Your task to perform on an android device: Open the web browser Image 0: 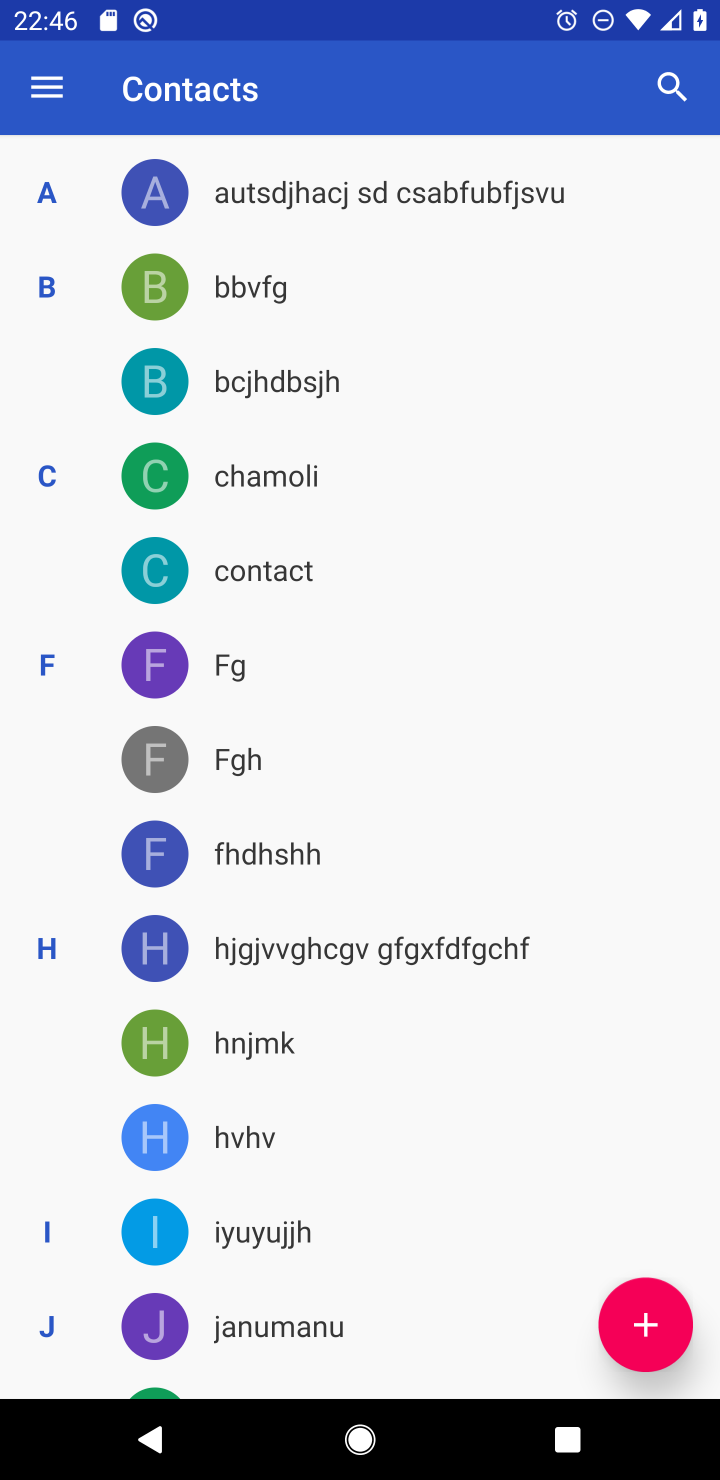
Step 0: press home button
Your task to perform on an android device: Open the web browser Image 1: 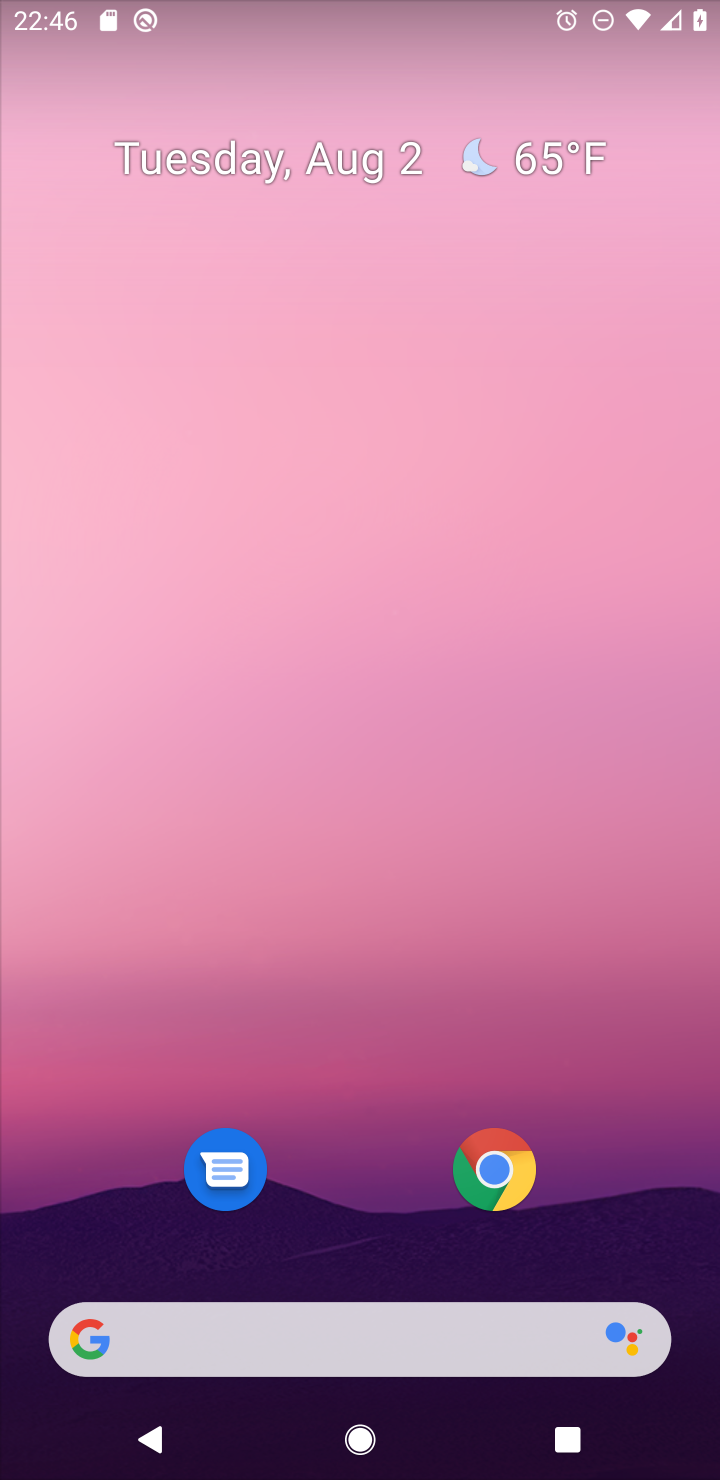
Step 1: click (490, 1170)
Your task to perform on an android device: Open the web browser Image 2: 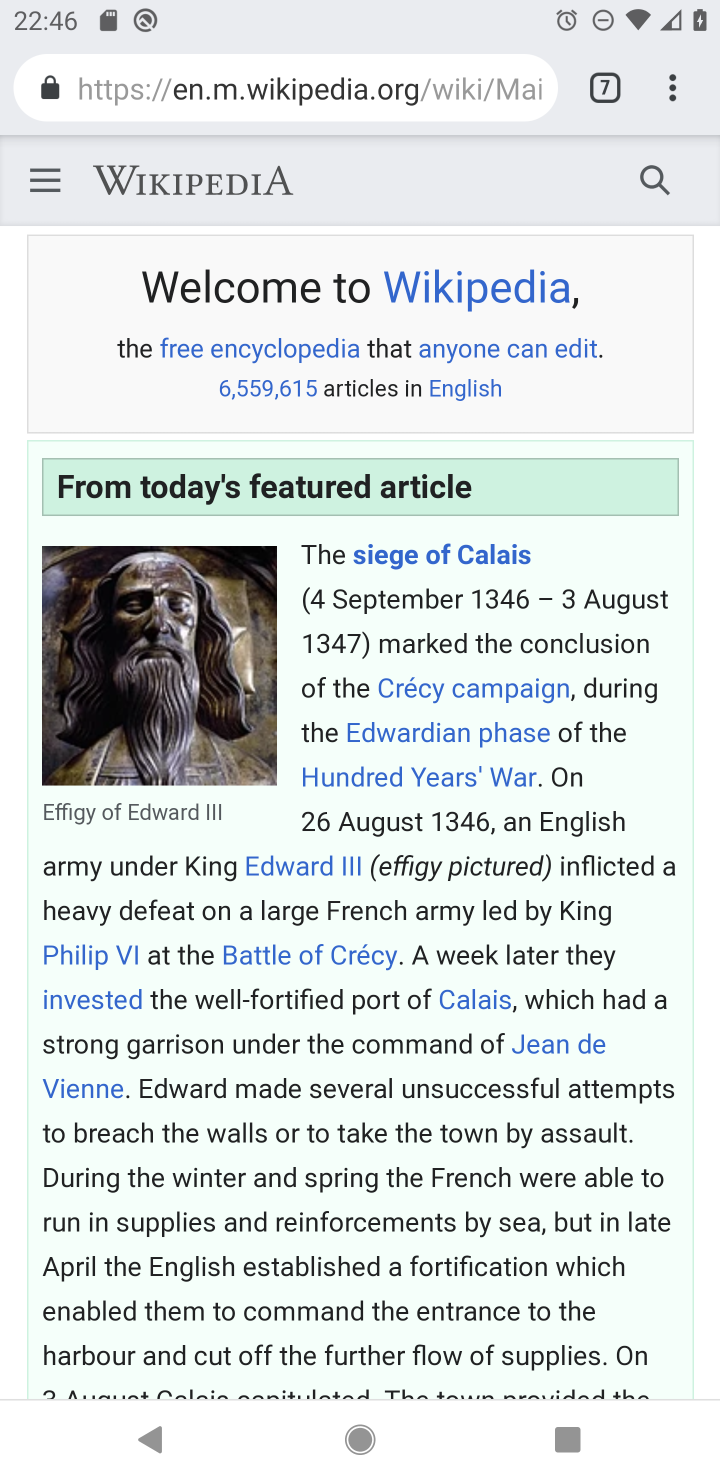
Step 2: task complete